Your task to perform on an android device: toggle pop-ups in chrome Image 0: 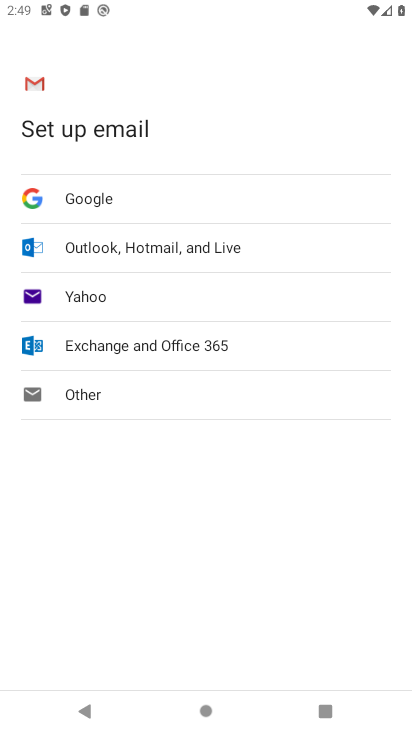
Step 0: press home button
Your task to perform on an android device: toggle pop-ups in chrome Image 1: 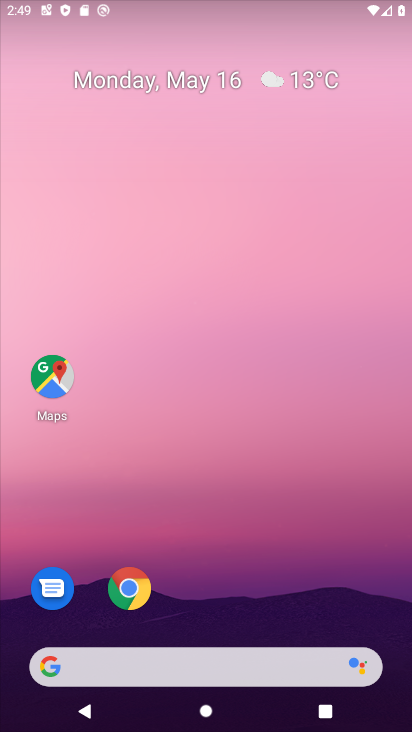
Step 1: drag from (280, 592) to (292, 5)
Your task to perform on an android device: toggle pop-ups in chrome Image 2: 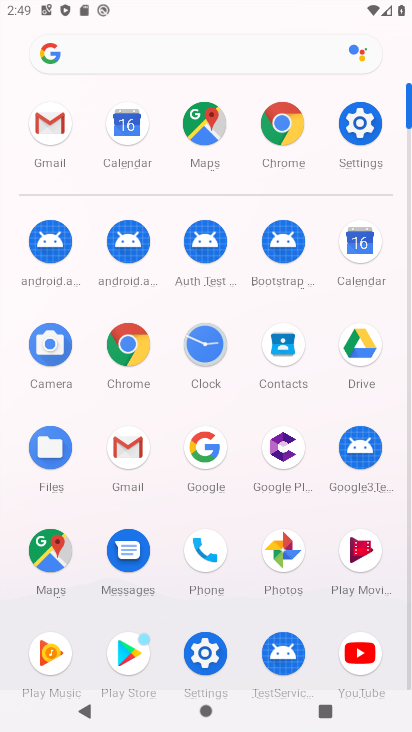
Step 2: click (145, 339)
Your task to perform on an android device: toggle pop-ups in chrome Image 3: 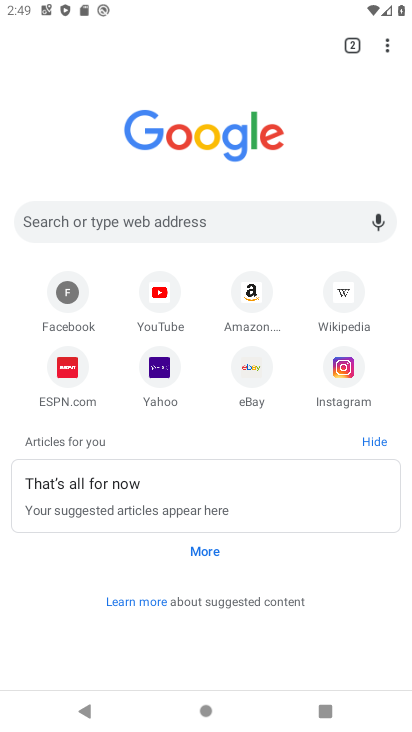
Step 3: click (384, 44)
Your task to perform on an android device: toggle pop-ups in chrome Image 4: 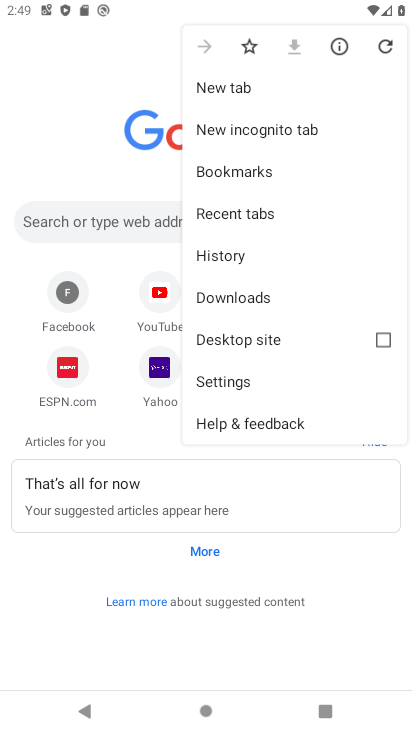
Step 4: click (238, 385)
Your task to perform on an android device: toggle pop-ups in chrome Image 5: 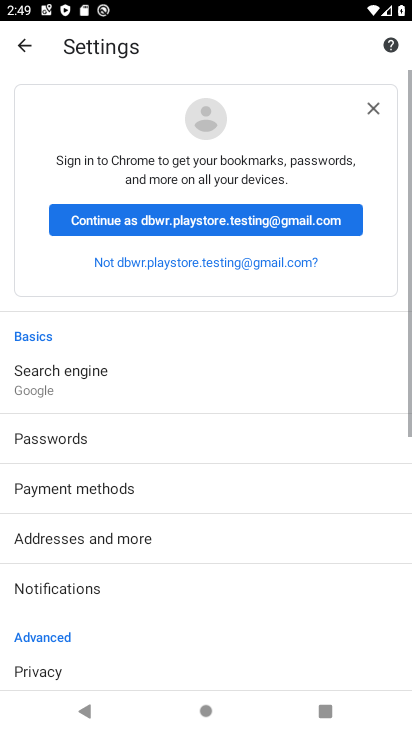
Step 5: drag from (300, 650) to (315, 130)
Your task to perform on an android device: toggle pop-ups in chrome Image 6: 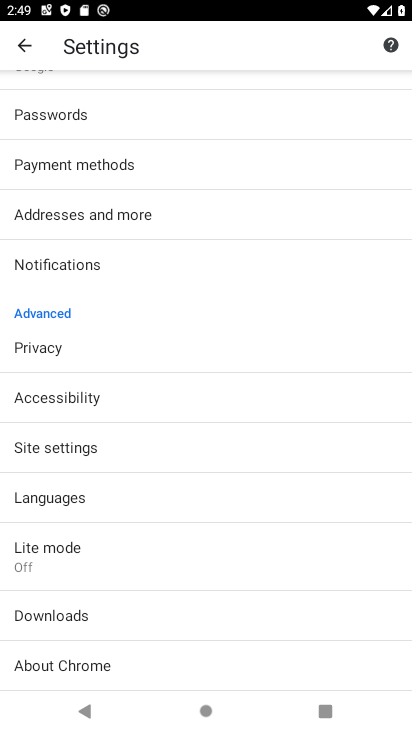
Step 6: drag from (160, 667) to (182, 407)
Your task to perform on an android device: toggle pop-ups in chrome Image 7: 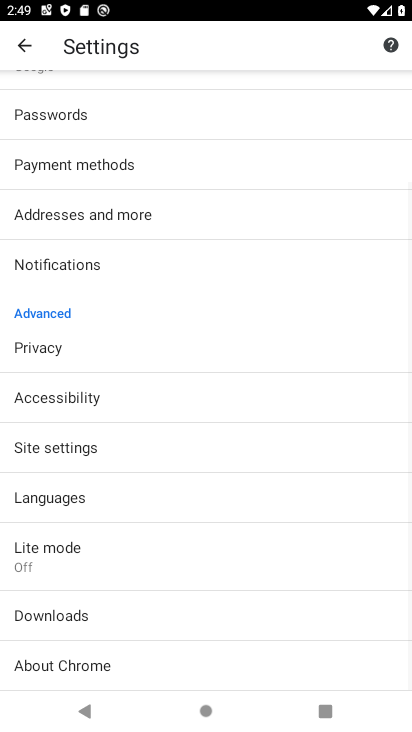
Step 7: click (115, 446)
Your task to perform on an android device: toggle pop-ups in chrome Image 8: 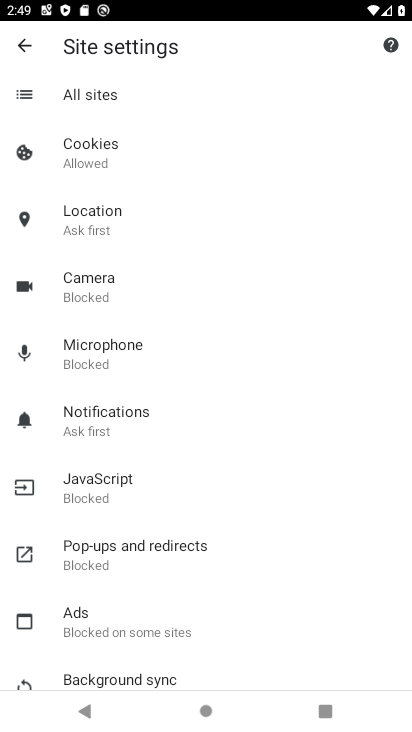
Step 8: click (160, 561)
Your task to perform on an android device: toggle pop-ups in chrome Image 9: 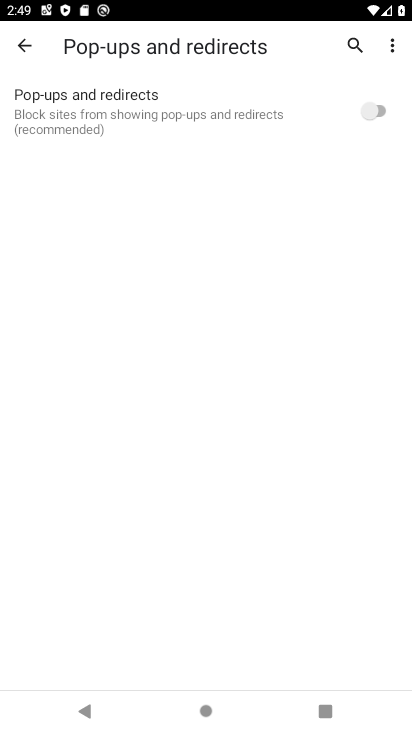
Step 9: click (380, 112)
Your task to perform on an android device: toggle pop-ups in chrome Image 10: 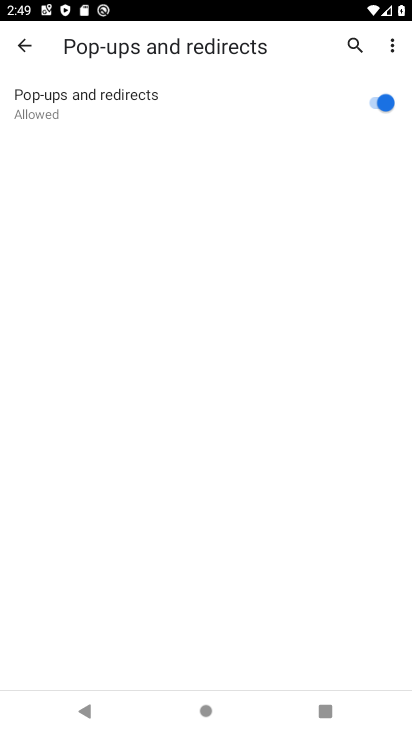
Step 10: task complete